Your task to perform on an android device: move an email to a new category in the gmail app Image 0: 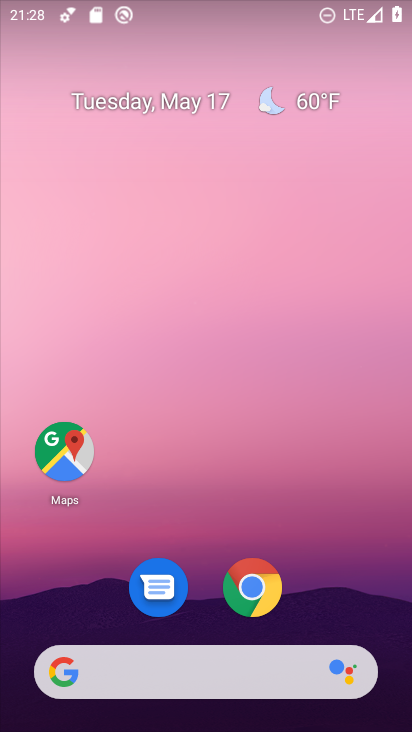
Step 0: drag from (212, 546) to (83, 98)
Your task to perform on an android device: move an email to a new category in the gmail app Image 1: 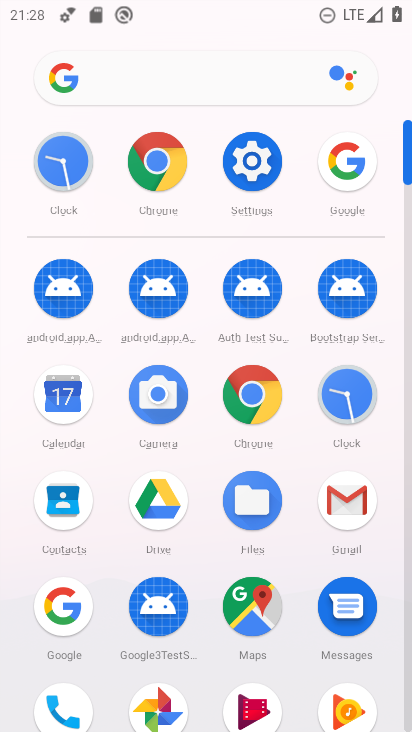
Step 1: click (351, 506)
Your task to perform on an android device: move an email to a new category in the gmail app Image 2: 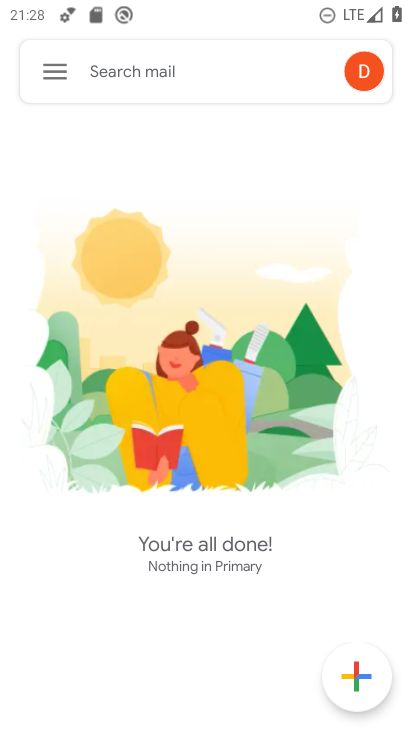
Step 2: click (51, 73)
Your task to perform on an android device: move an email to a new category in the gmail app Image 3: 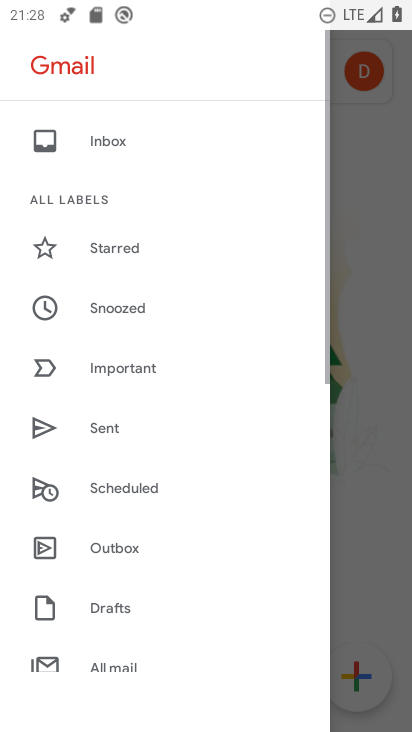
Step 3: drag from (278, 549) to (89, 181)
Your task to perform on an android device: move an email to a new category in the gmail app Image 4: 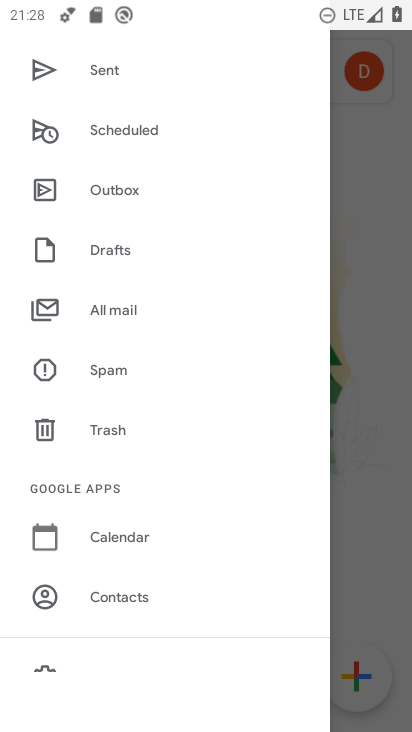
Step 4: click (87, 318)
Your task to perform on an android device: move an email to a new category in the gmail app Image 5: 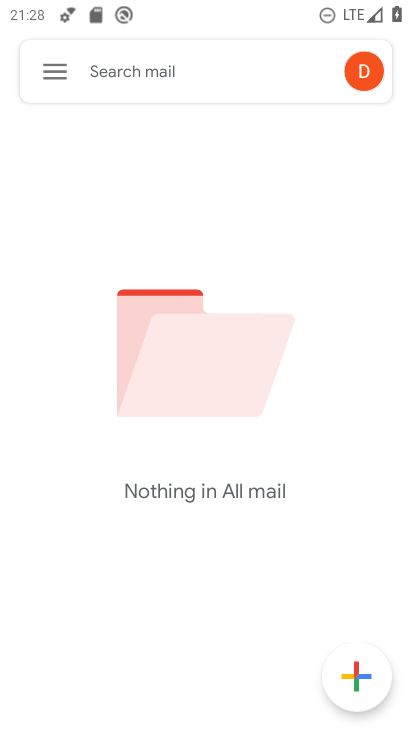
Step 5: task complete